Your task to perform on an android device: Set the phone to "Do not disturb". Image 0: 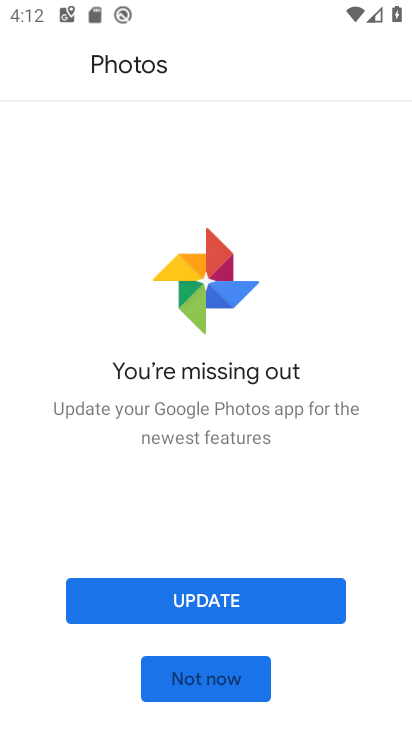
Step 0: press home button
Your task to perform on an android device: Set the phone to "Do not disturb". Image 1: 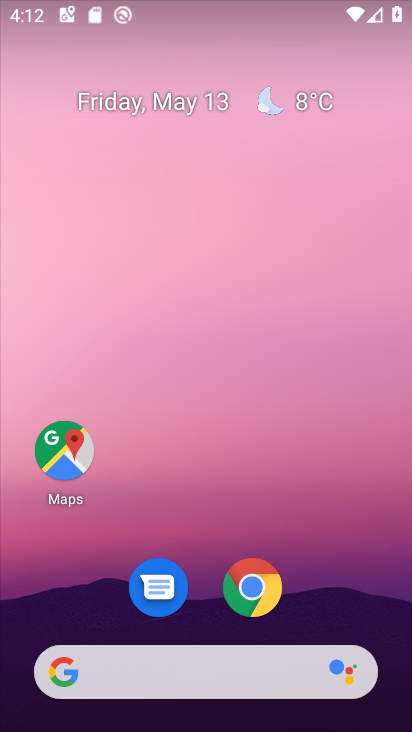
Step 1: drag from (193, 620) to (213, 240)
Your task to perform on an android device: Set the phone to "Do not disturb". Image 2: 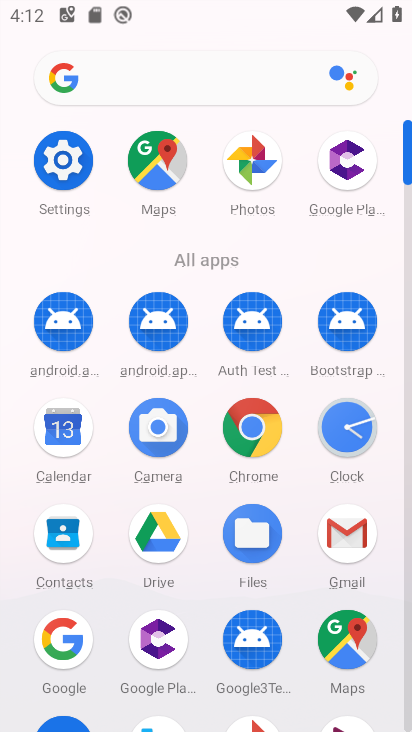
Step 2: click (51, 173)
Your task to perform on an android device: Set the phone to "Do not disturb". Image 3: 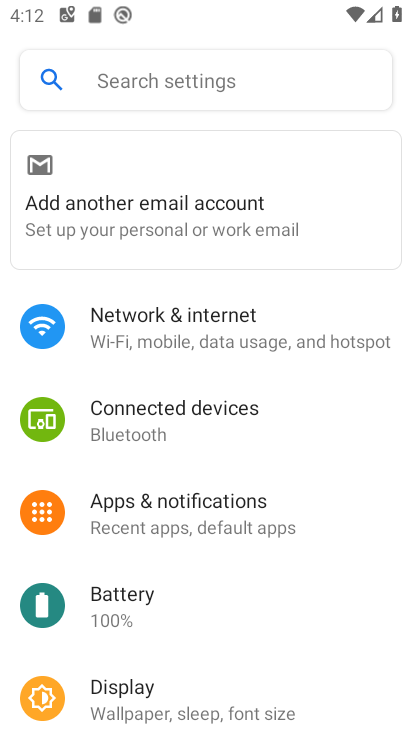
Step 3: drag from (157, 625) to (189, 333)
Your task to perform on an android device: Set the phone to "Do not disturb". Image 4: 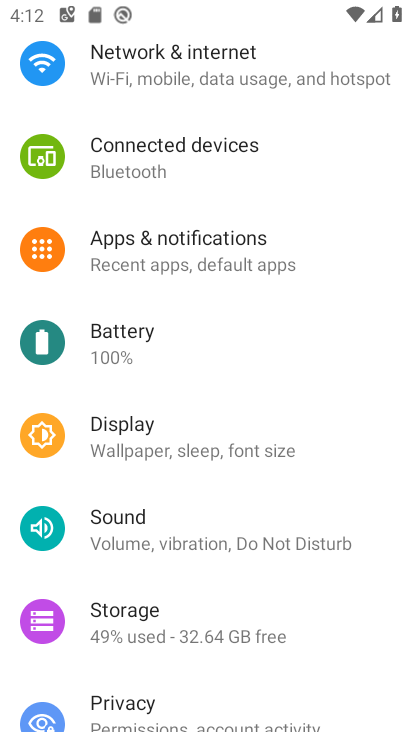
Step 4: click (134, 519)
Your task to perform on an android device: Set the phone to "Do not disturb". Image 5: 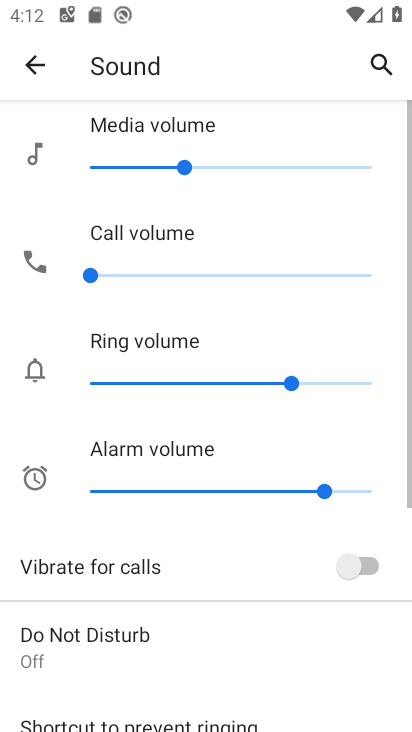
Step 5: click (161, 645)
Your task to perform on an android device: Set the phone to "Do not disturb". Image 6: 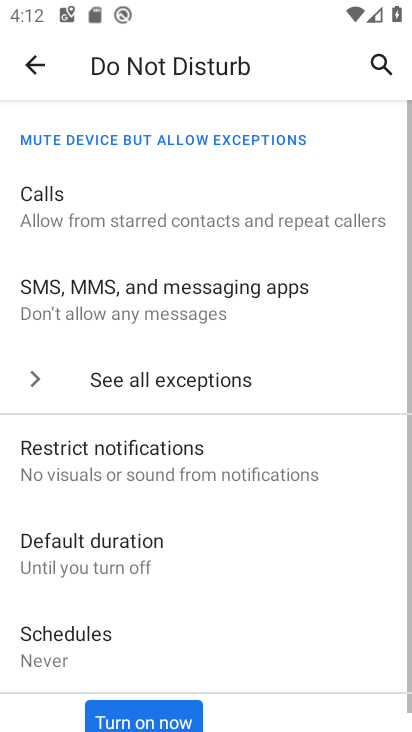
Step 6: drag from (161, 642) to (170, 443)
Your task to perform on an android device: Set the phone to "Do not disturb". Image 7: 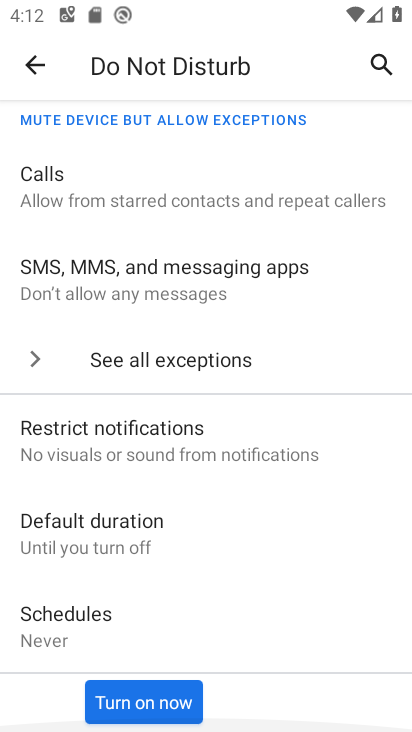
Step 7: click (147, 685)
Your task to perform on an android device: Set the phone to "Do not disturb". Image 8: 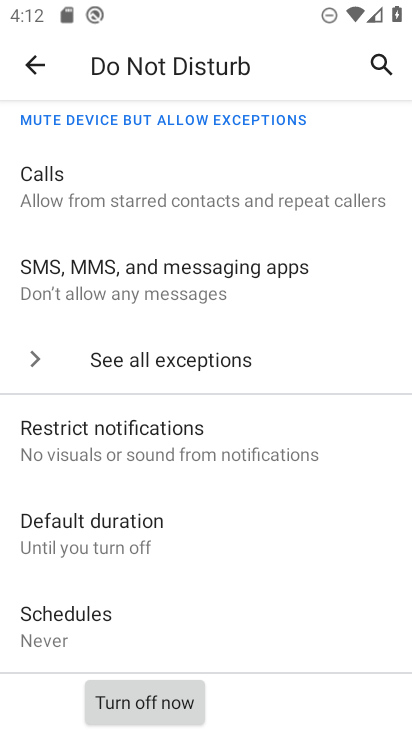
Step 8: task complete